Your task to perform on an android device: change text size in settings app Image 0: 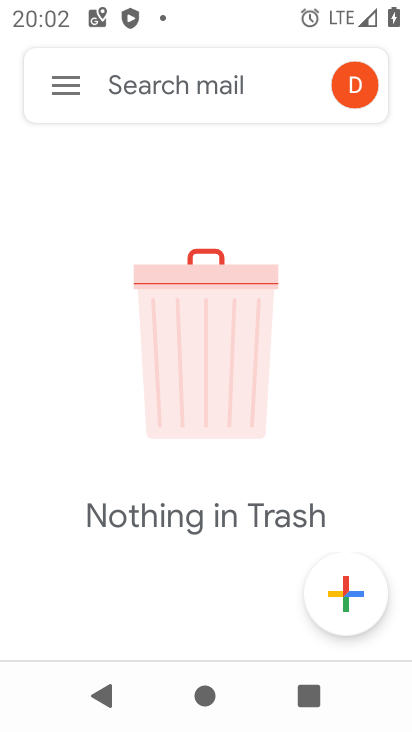
Step 0: press home button
Your task to perform on an android device: change text size in settings app Image 1: 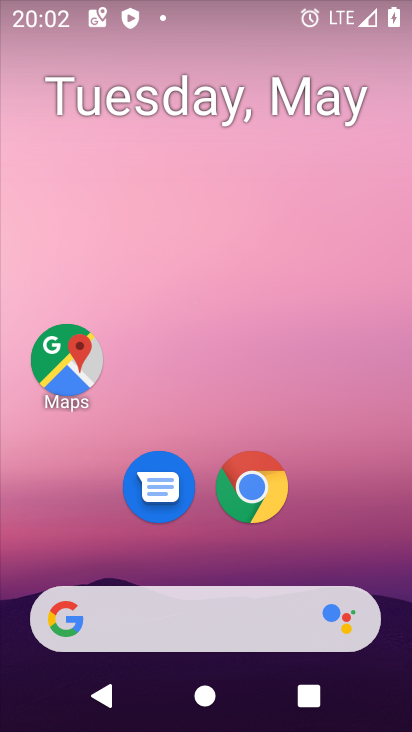
Step 1: drag from (329, 549) to (139, 62)
Your task to perform on an android device: change text size in settings app Image 2: 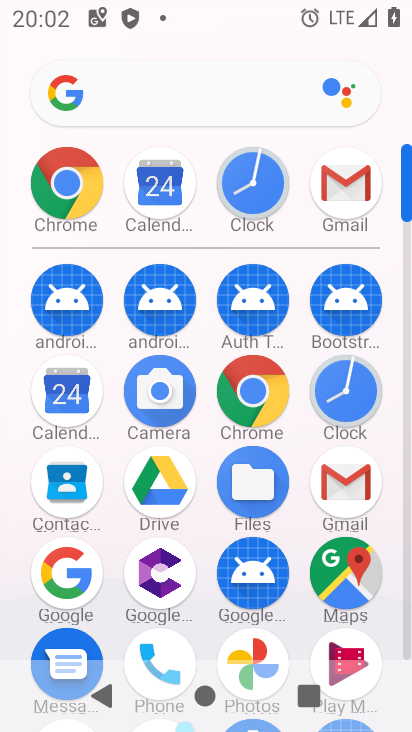
Step 2: drag from (195, 488) to (208, 40)
Your task to perform on an android device: change text size in settings app Image 3: 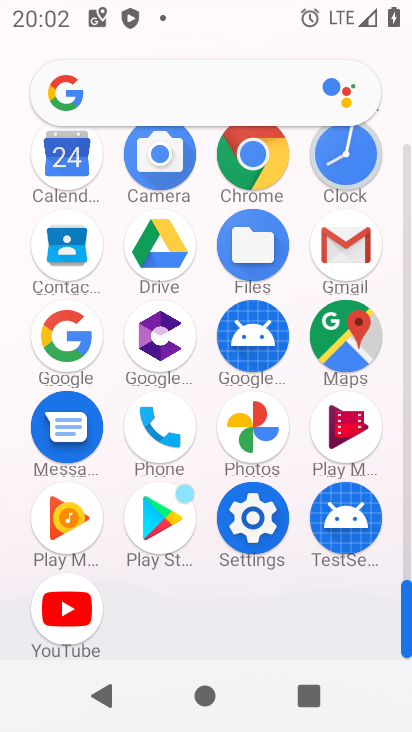
Step 3: click (248, 517)
Your task to perform on an android device: change text size in settings app Image 4: 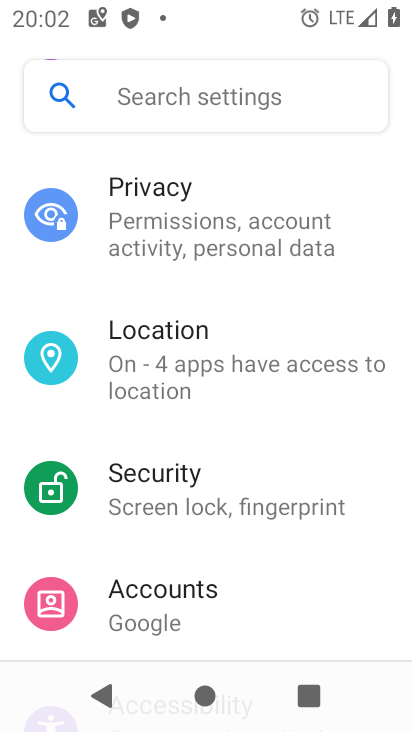
Step 4: drag from (227, 277) to (278, 717)
Your task to perform on an android device: change text size in settings app Image 5: 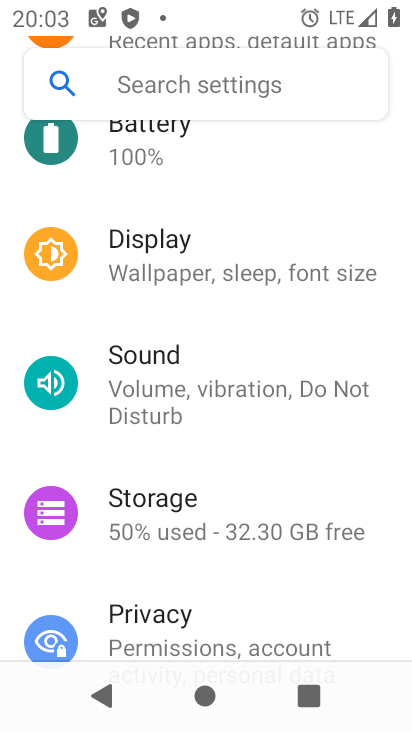
Step 5: click (181, 261)
Your task to perform on an android device: change text size in settings app Image 6: 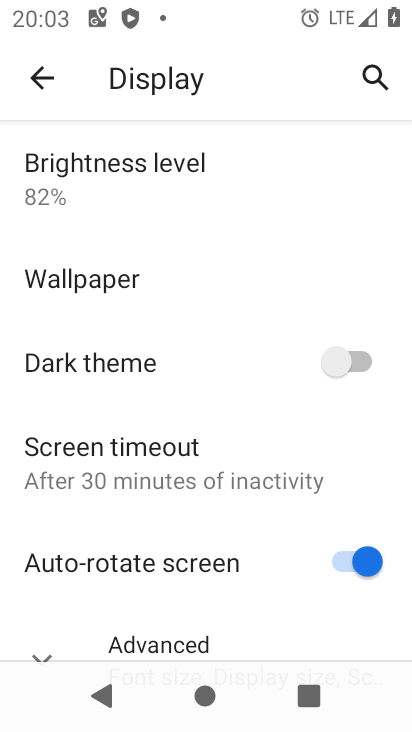
Step 6: drag from (201, 506) to (183, 166)
Your task to perform on an android device: change text size in settings app Image 7: 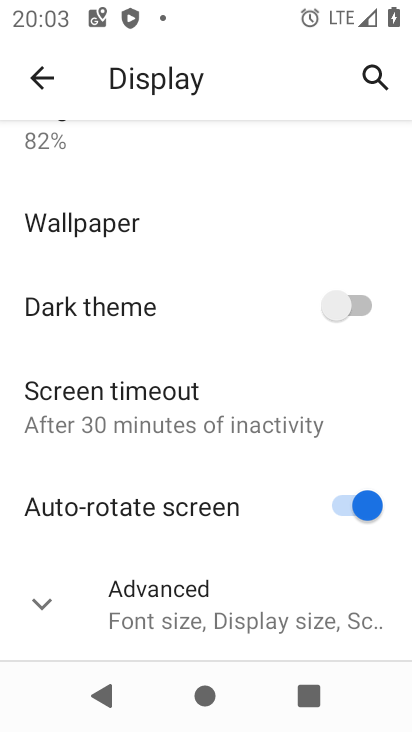
Step 7: click (38, 606)
Your task to perform on an android device: change text size in settings app Image 8: 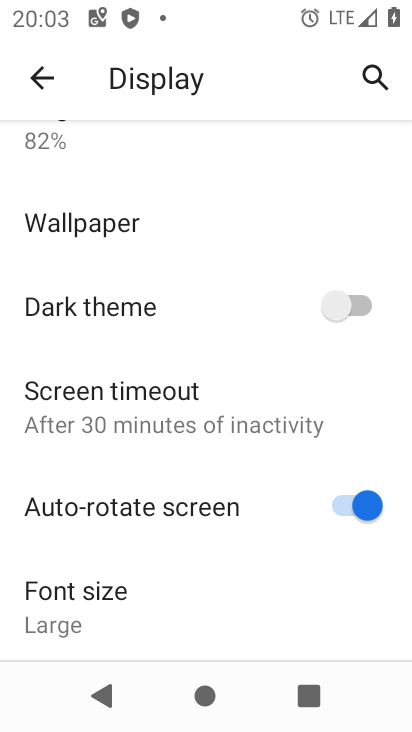
Step 8: click (92, 587)
Your task to perform on an android device: change text size in settings app Image 9: 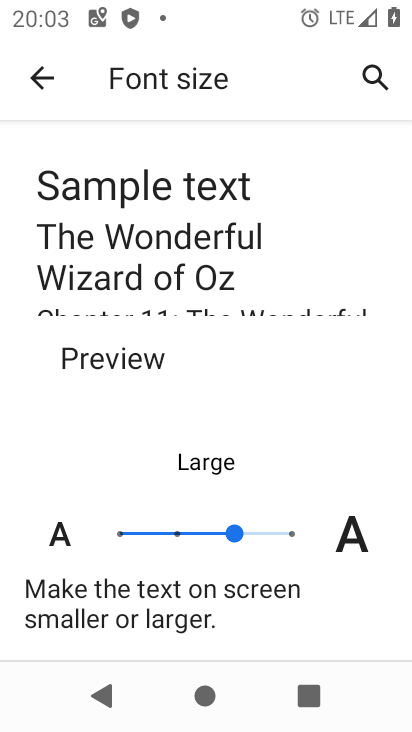
Step 9: click (178, 534)
Your task to perform on an android device: change text size in settings app Image 10: 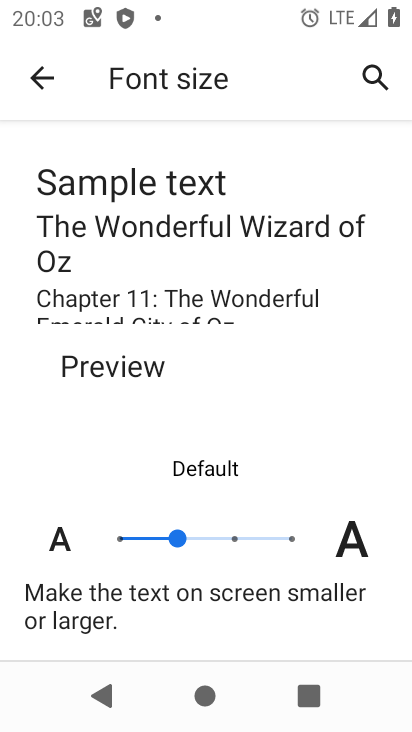
Step 10: task complete